Your task to perform on an android device: Turn off the flashlight Image 0: 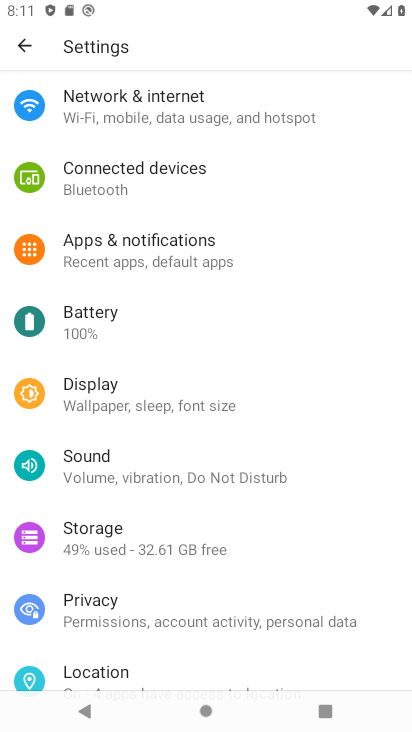
Step 0: press home button
Your task to perform on an android device: Turn off the flashlight Image 1: 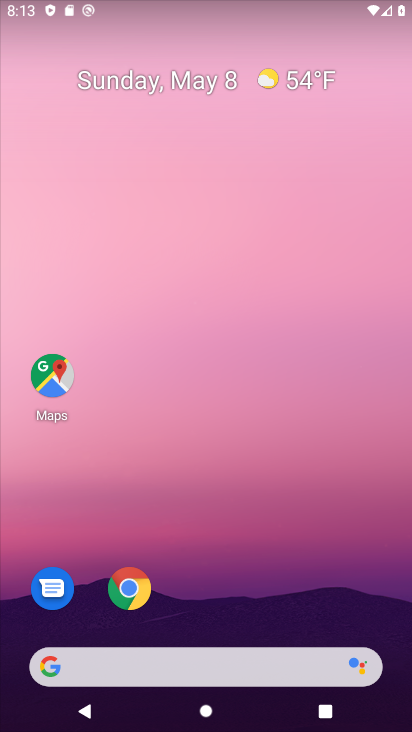
Step 1: drag from (38, 618) to (257, 289)
Your task to perform on an android device: Turn off the flashlight Image 2: 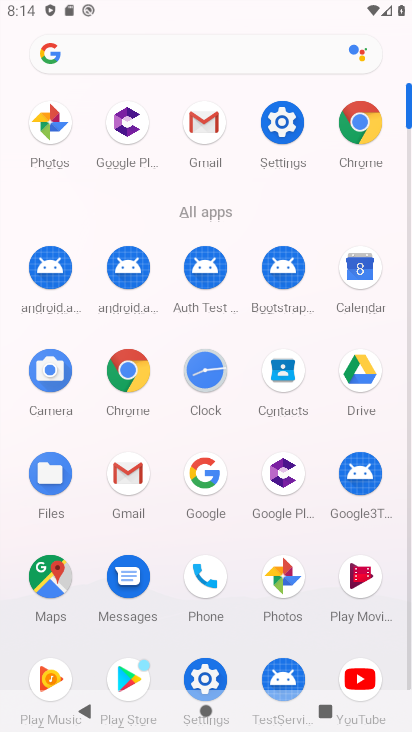
Step 2: click (288, 112)
Your task to perform on an android device: Turn off the flashlight Image 3: 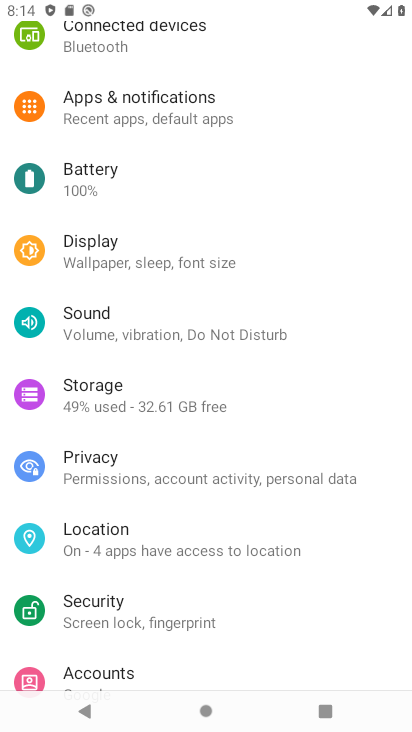
Step 3: task complete